Your task to perform on an android device: Clear the cart on walmart.com. Add apple airpods pro to the cart on walmart.com Image 0: 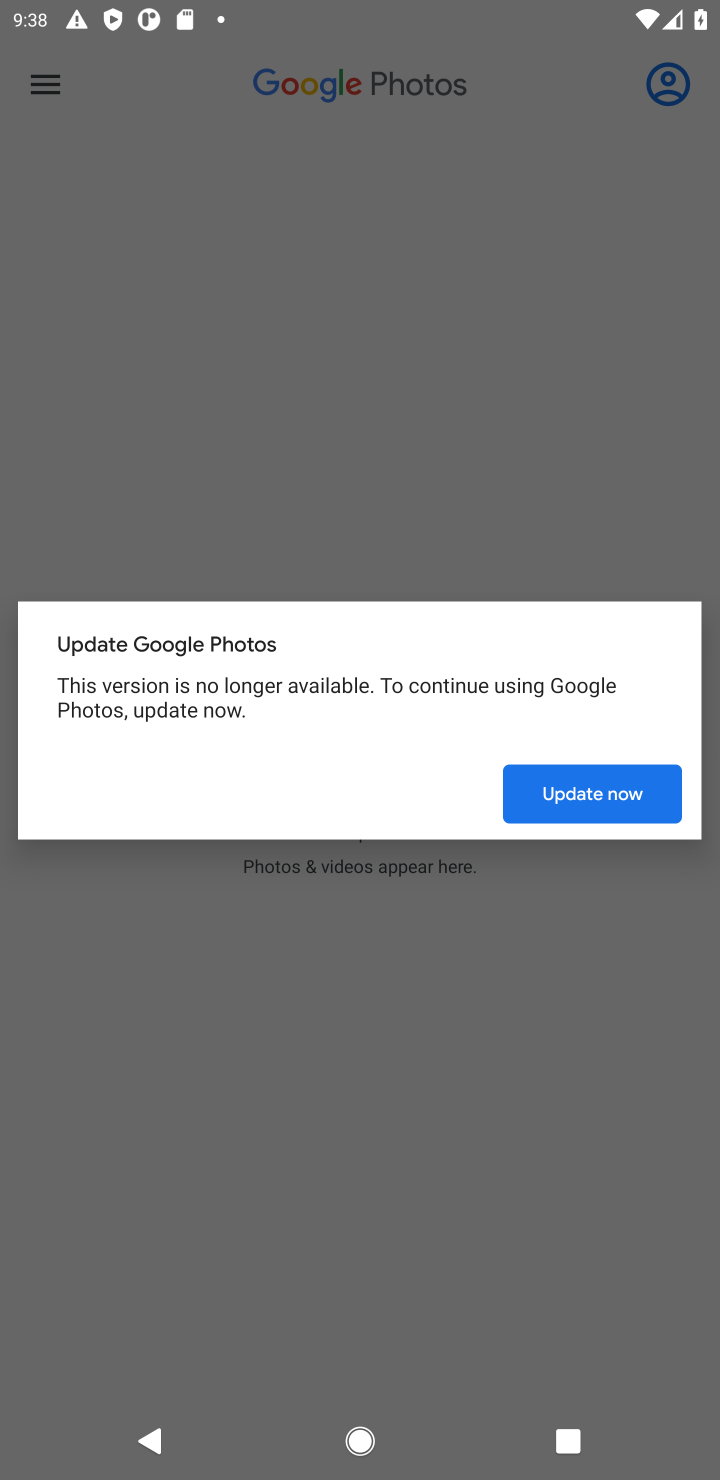
Step 0: press home button
Your task to perform on an android device: Clear the cart on walmart.com. Add apple airpods pro to the cart on walmart.com Image 1: 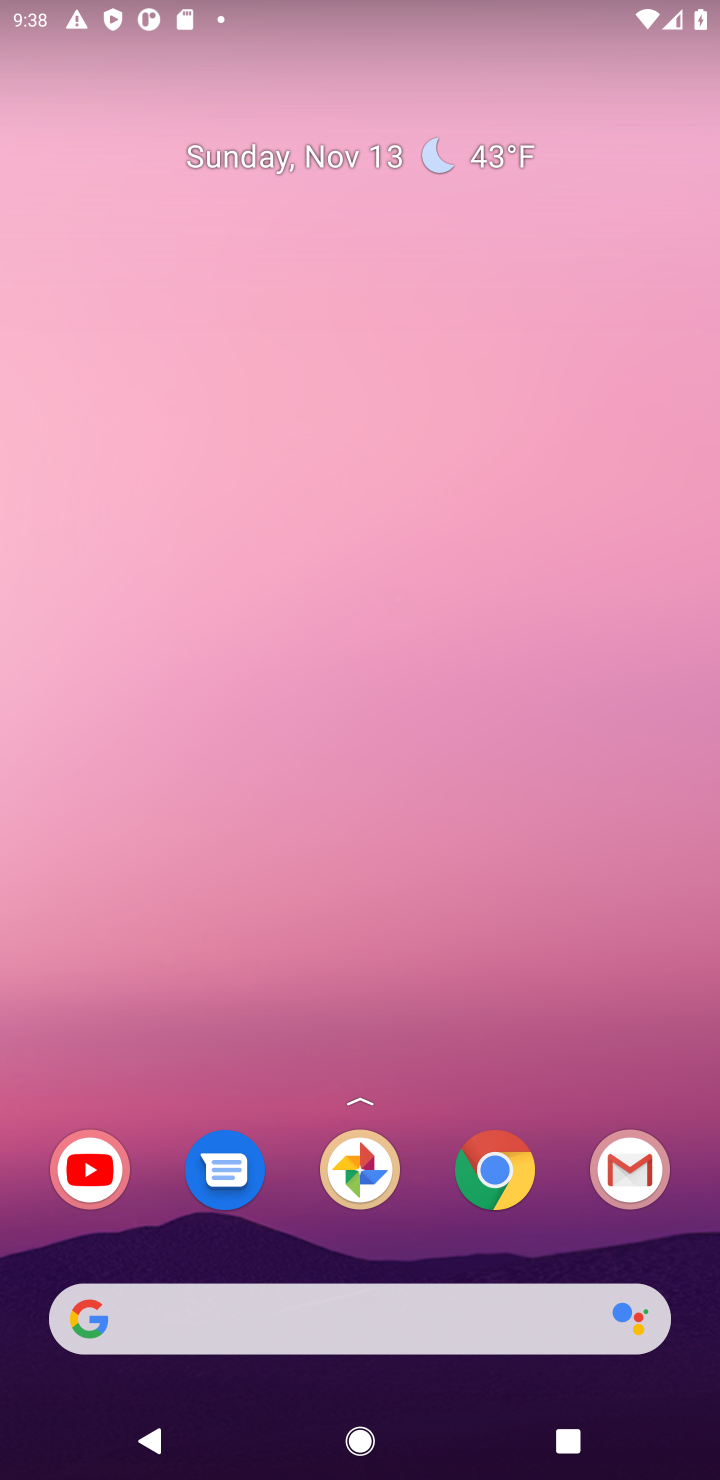
Step 1: drag from (333, 166) to (391, 13)
Your task to perform on an android device: Clear the cart on walmart.com. Add apple airpods pro to the cart on walmart.com Image 2: 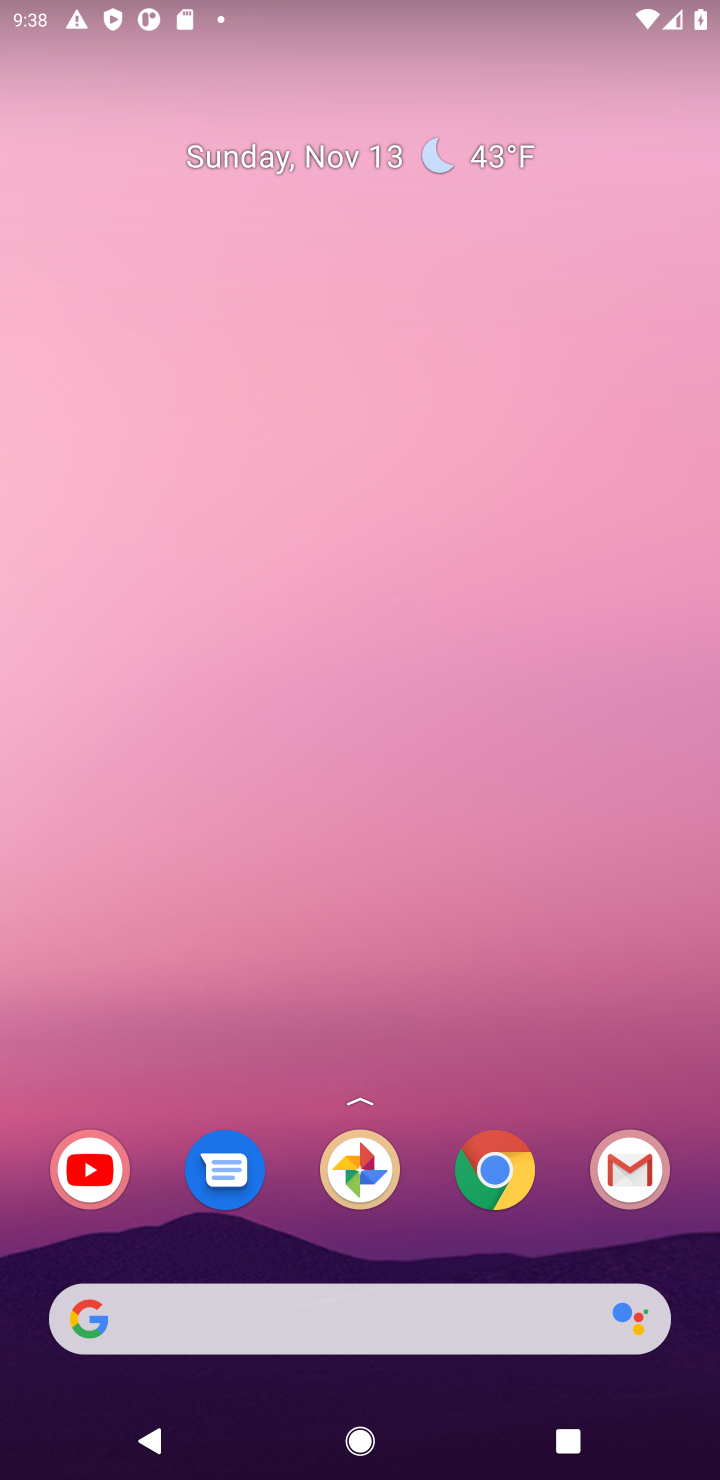
Step 2: drag from (414, 988) to (354, 17)
Your task to perform on an android device: Clear the cart on walmart.com. Add apple airpods pro to the cart on walmart.com Image 3: 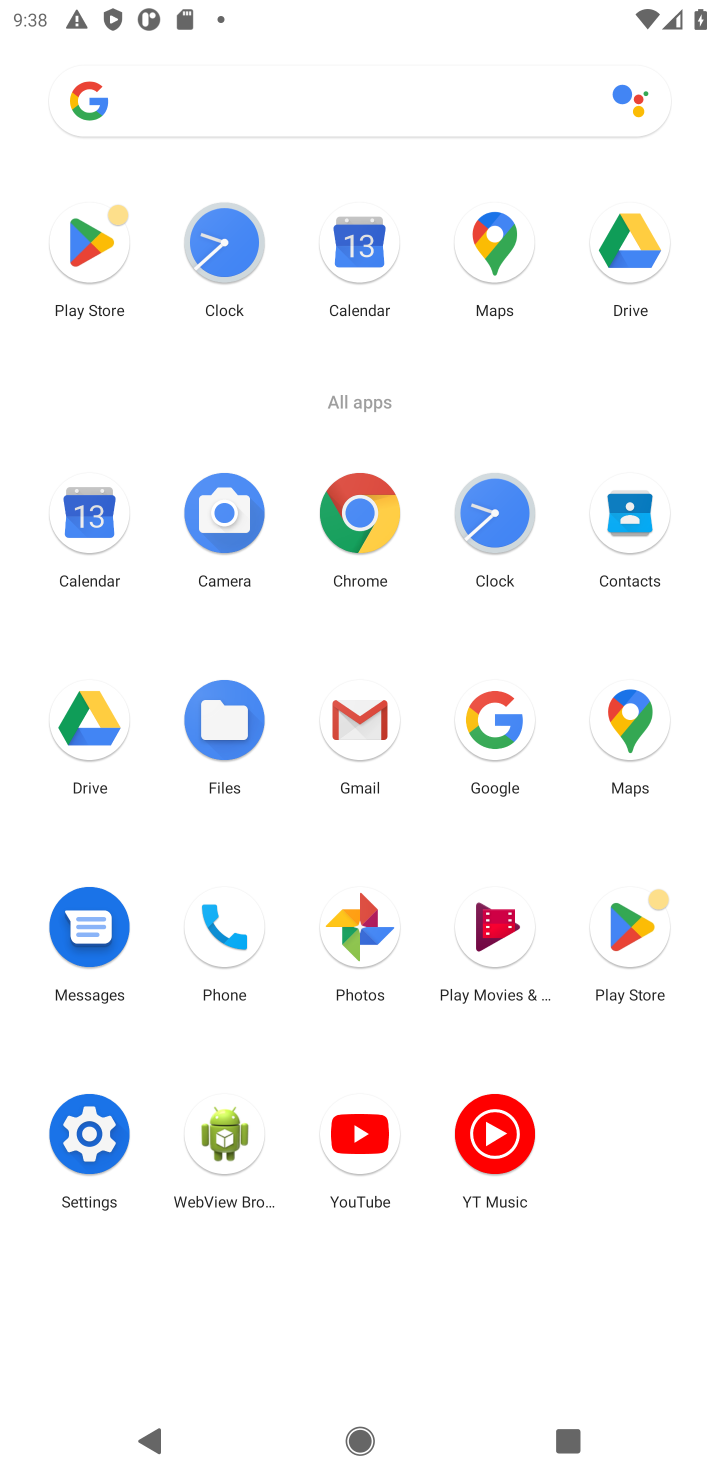
Step 3: click (359, 531)
Your task to perform on an android device: Clear the cart on walmart.com. Add apple airpods pro to the cart on walmart.com Image 4: 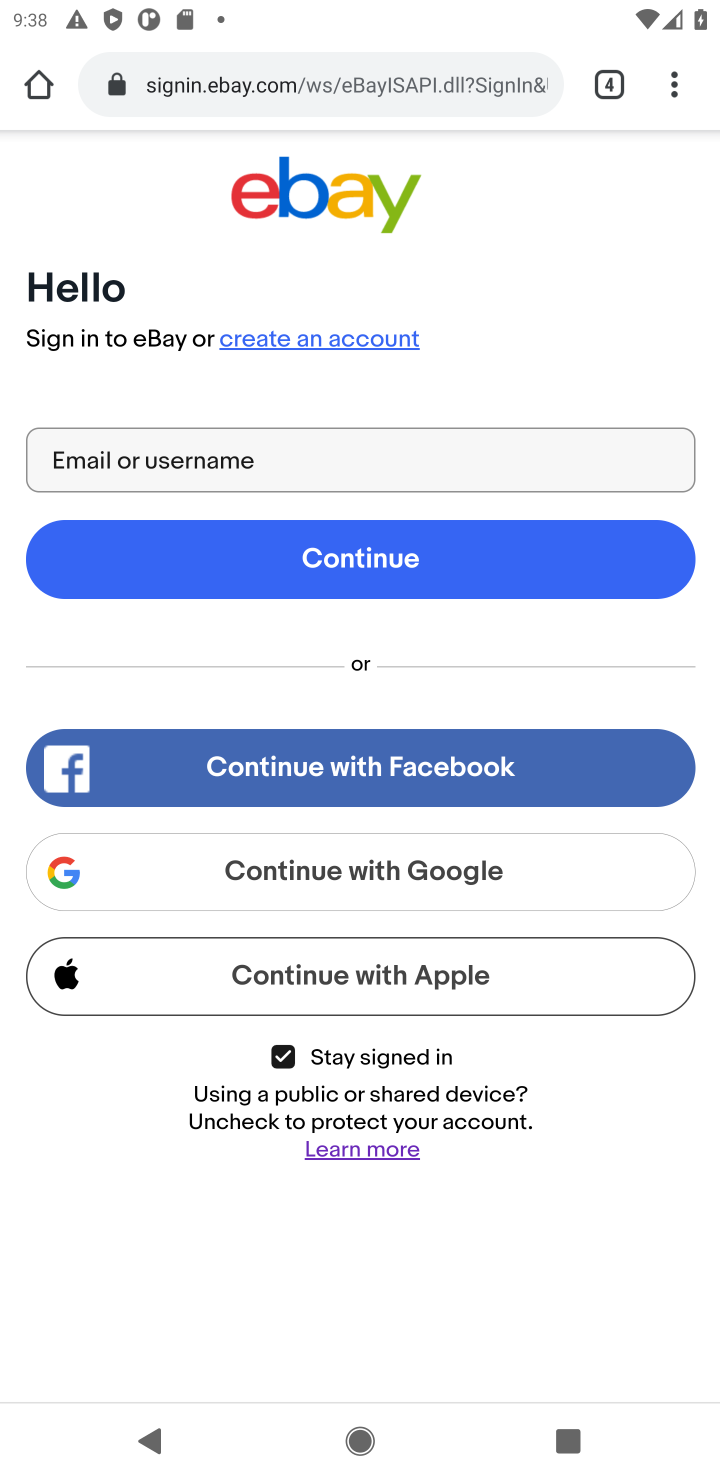
Step 4: click (366, 94)
Your task to perform on an android device: Clear the cart on walmart.com. Add apple airpods pro to the cart on walmart.com Image 5: 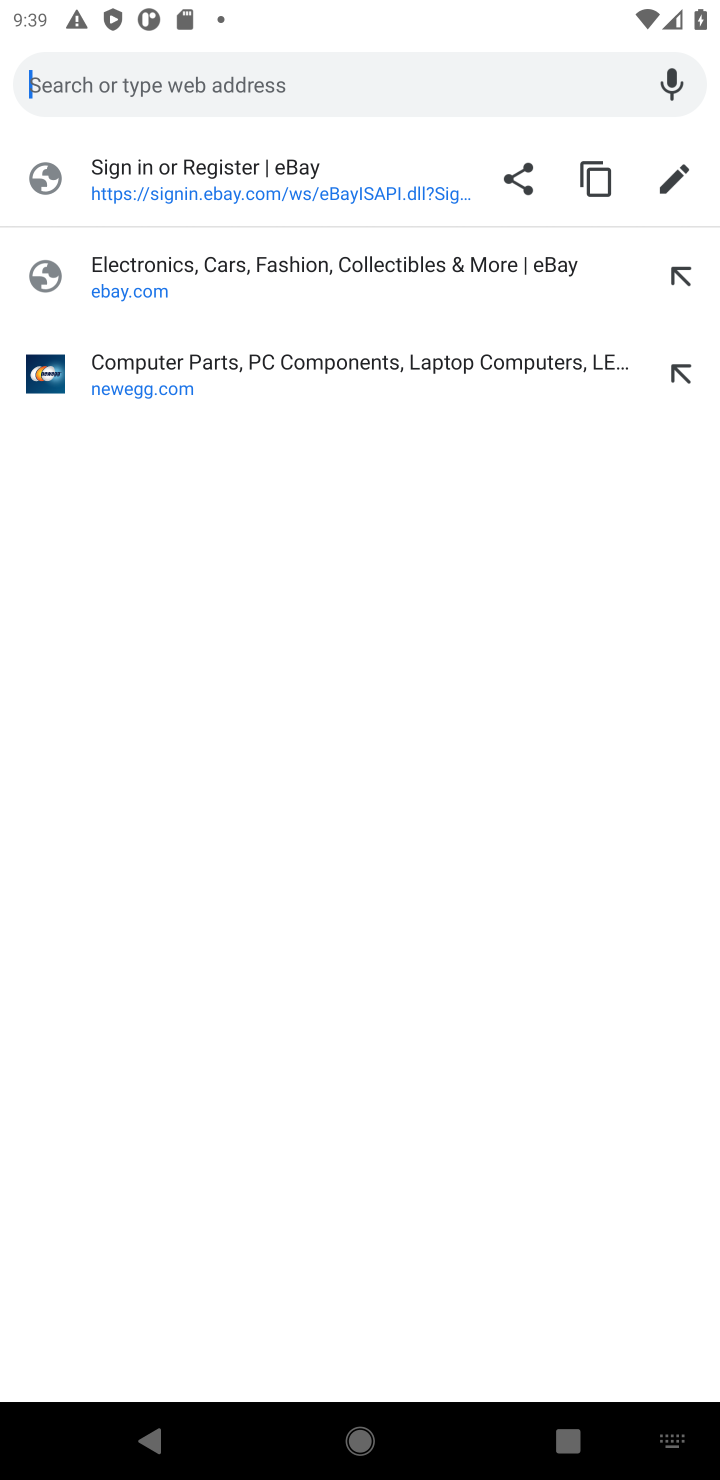
Step 5: type "walmart.com"
Your task to perform on an android device: Clear the cart on walmart.com. Add apple airpods pro to the cart on walmart.com Image 6: 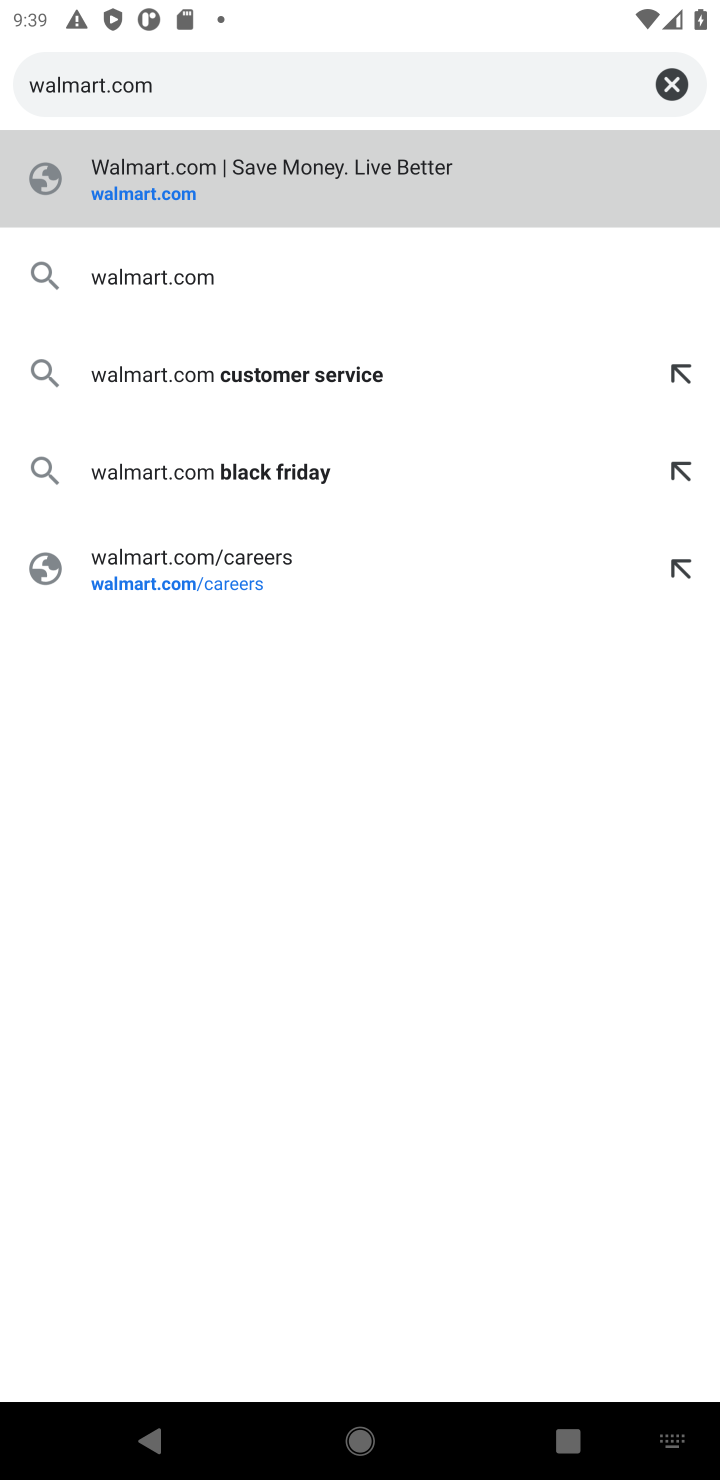
Step 6: press enter
Your task to perform on an android device: Clear the cart on walmart.com. Add apple airpods pro to the cart on walmart.com Image 7: 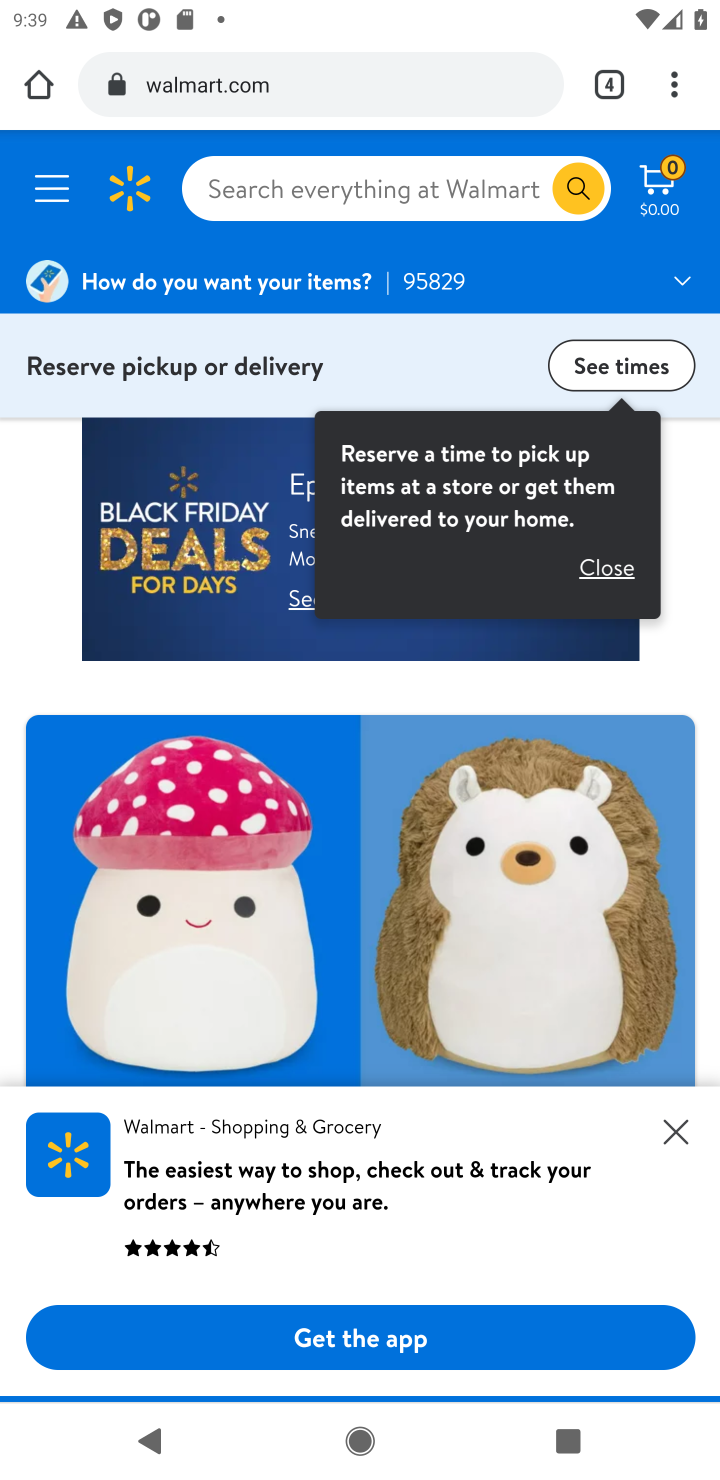
Step 7: click (325, 186)
Your task to perform on an android device: Clear the cart on walmart.com. Add apple airpods pro to the cart on walmart.com Image 8: 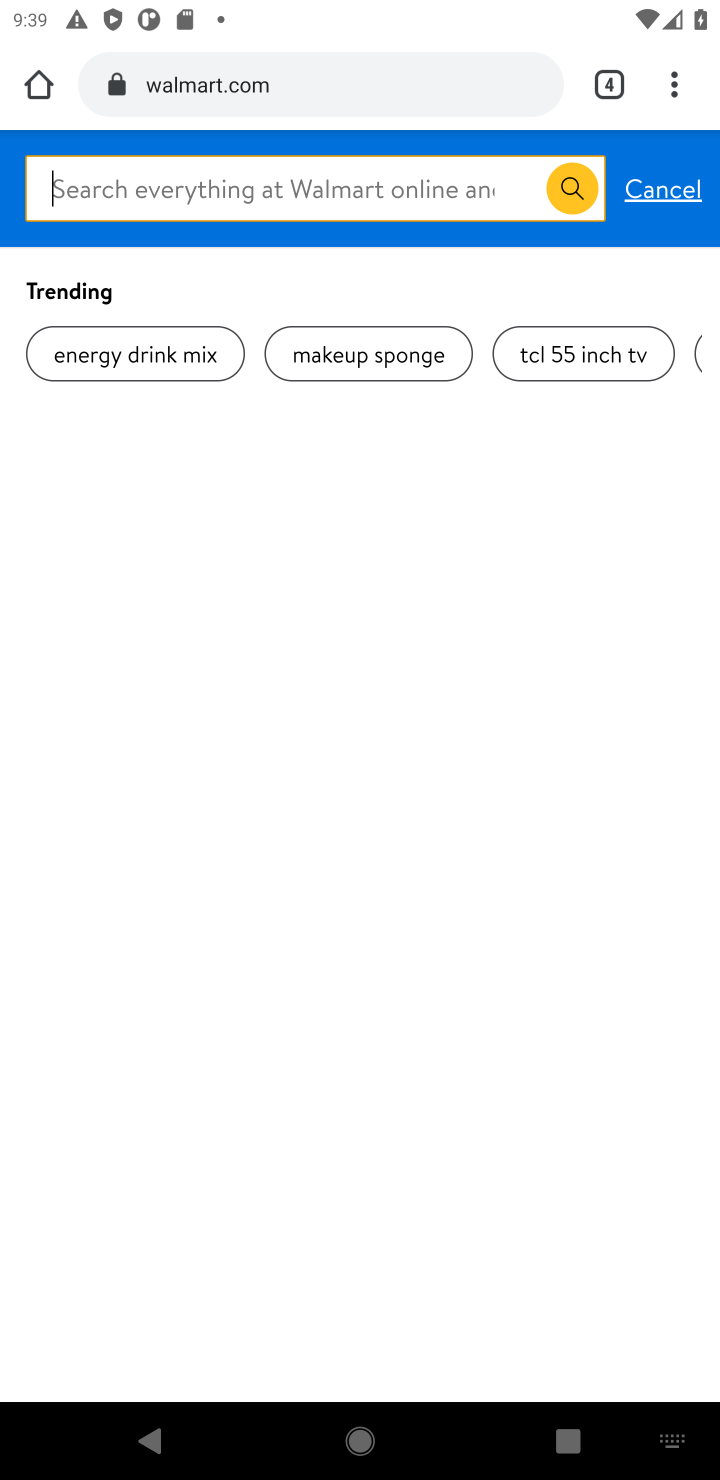
Step 8: type "apple airpods pro "
Your task to perform on an android device: Clear the cart on walmart.com. Add apple airpods pro to the cart on walmart.com Image 9: 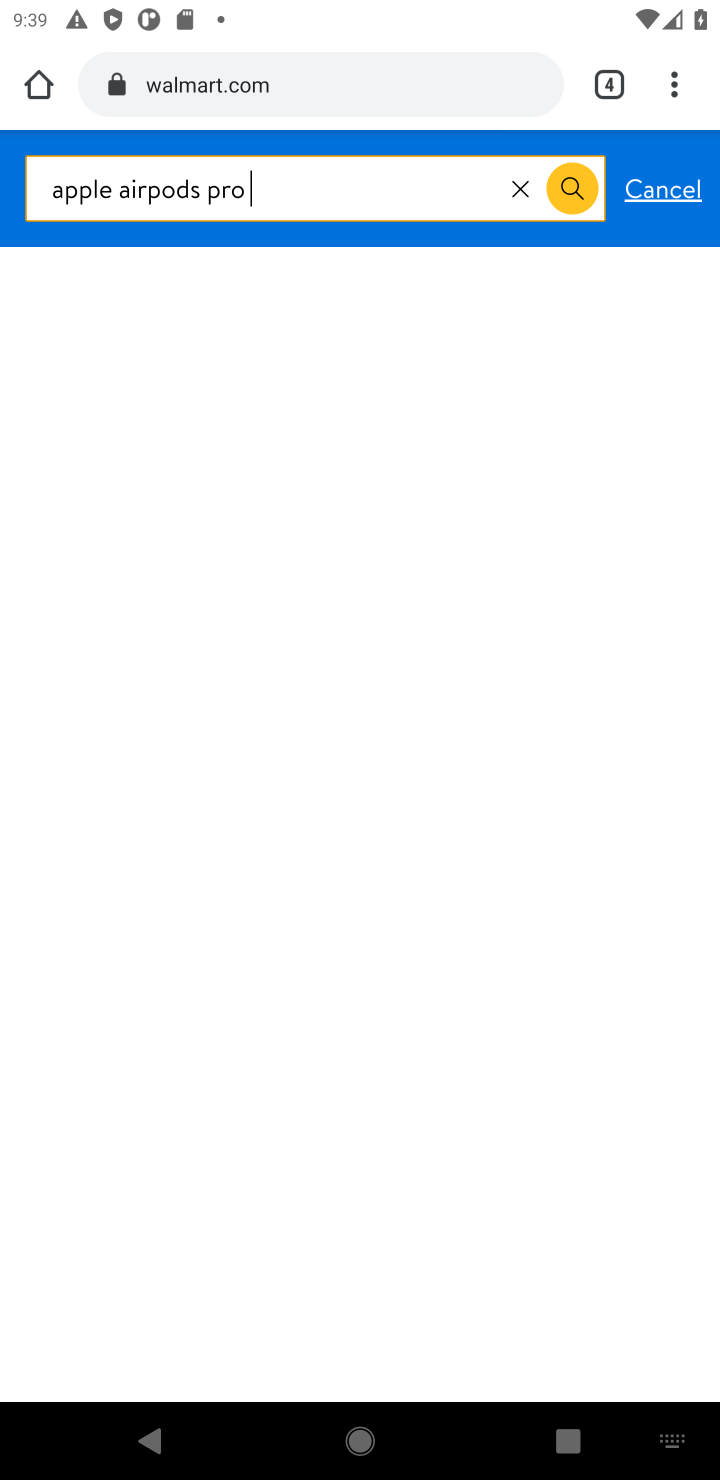
Step 9: press enter
Your task to perform on an android device: Clear the cart on walmart.com. Add apple airpods pro to the cart on walmart.com Image 10: 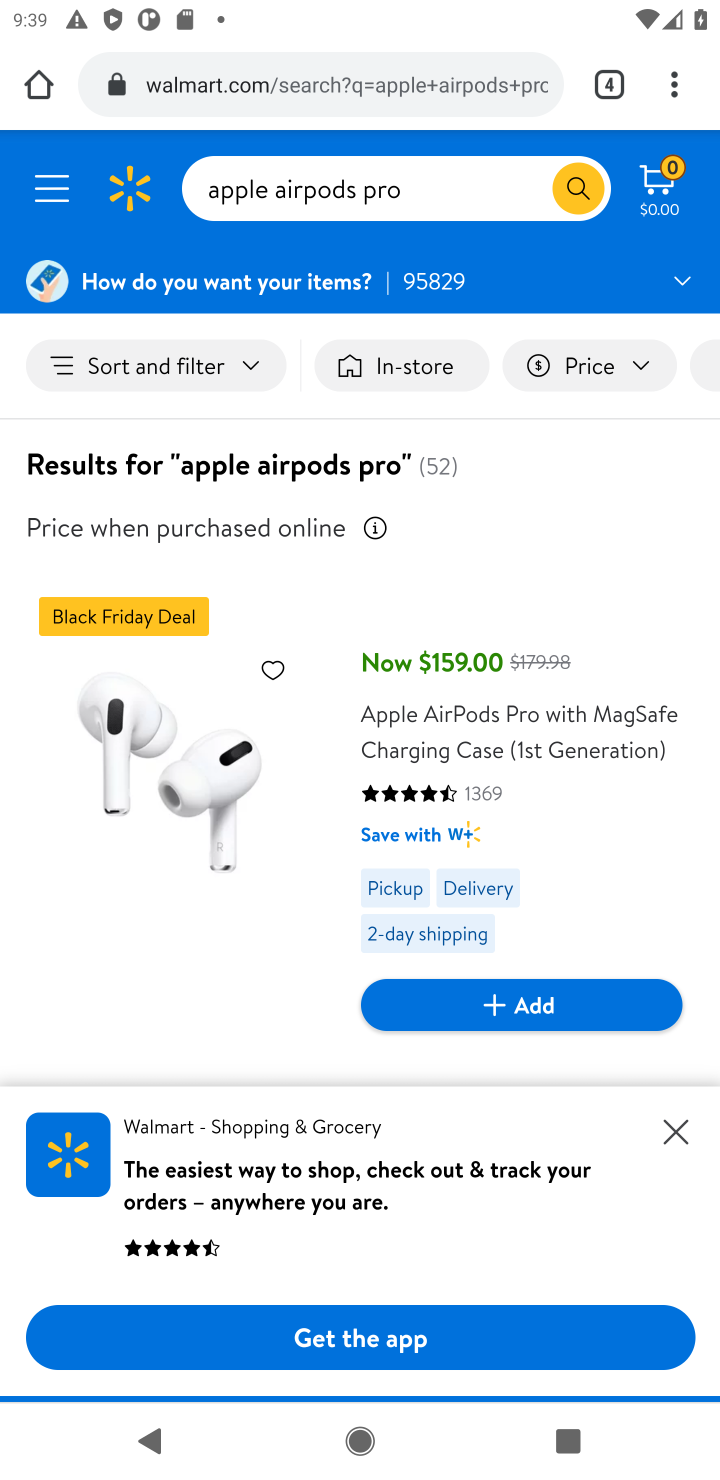
Step 10: click (556, 1005)
Your task to perform on an android device: Clear the cart on walmart.com. Add apple airpods pro to the cart on walmart.com Image 11: 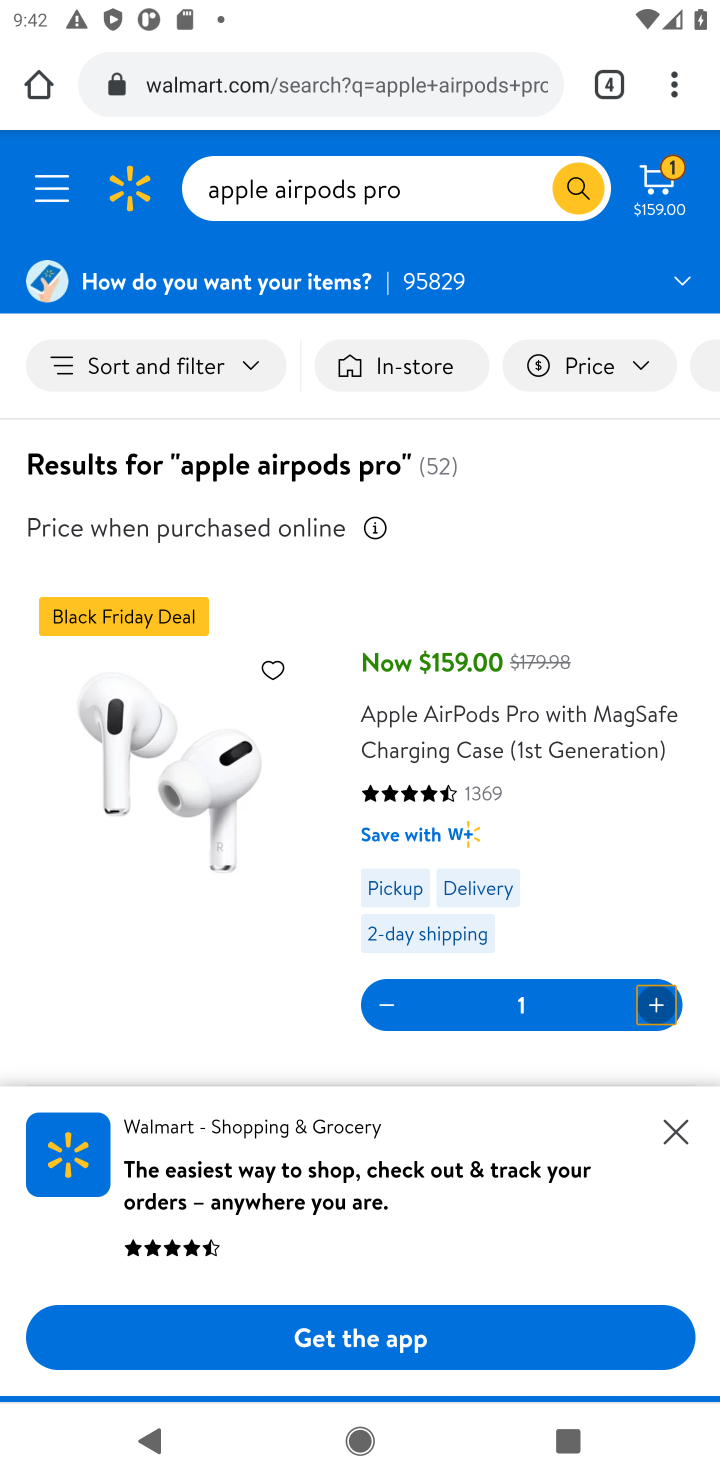
Step 11: task complete